Your task to perform on an android device: toggle sleep mode Image 0: 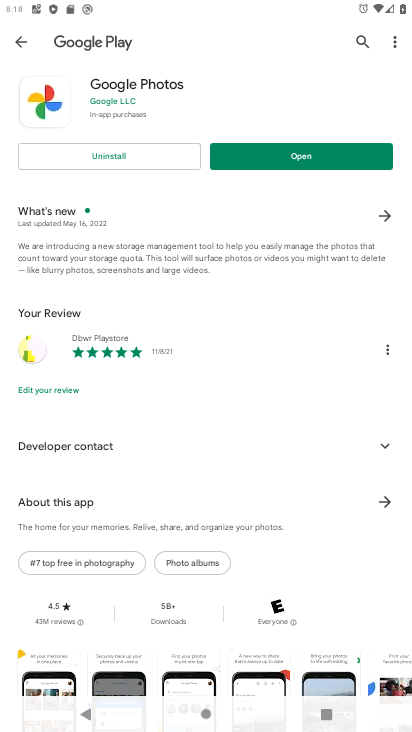
Step 0: press home button
Your task to perform on an android device: toggle sleep mode Image 1: 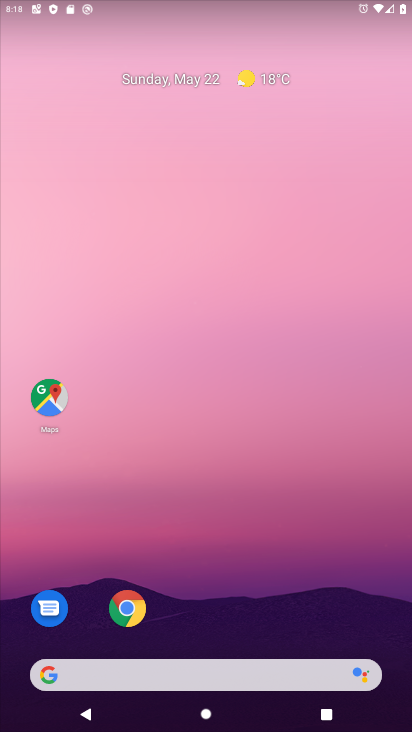
Step 1: drag from (220, 728) to (228, 94)
Your task to perform on an android device: toggle sleep mode Image 2: 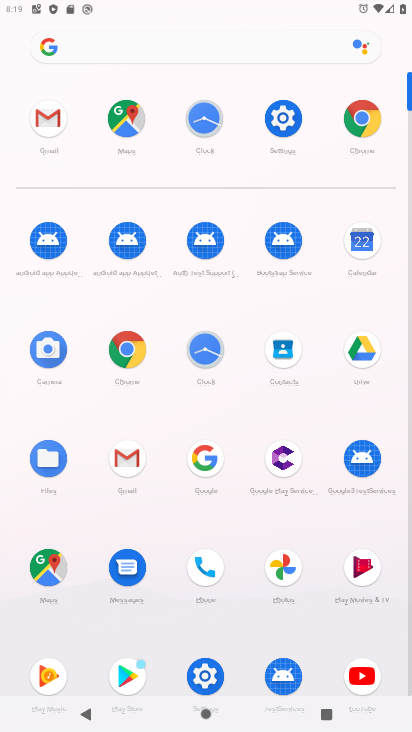
Step 2: click (279, 121)
Your task to perform on an android device: toggle sleep mode Image 3: 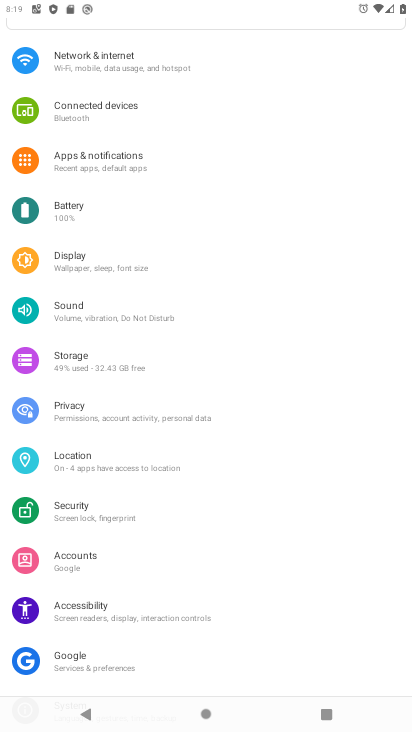
Step 3: task complete